Your task to perform on an android device: toggle improve location accuracy Image 0: 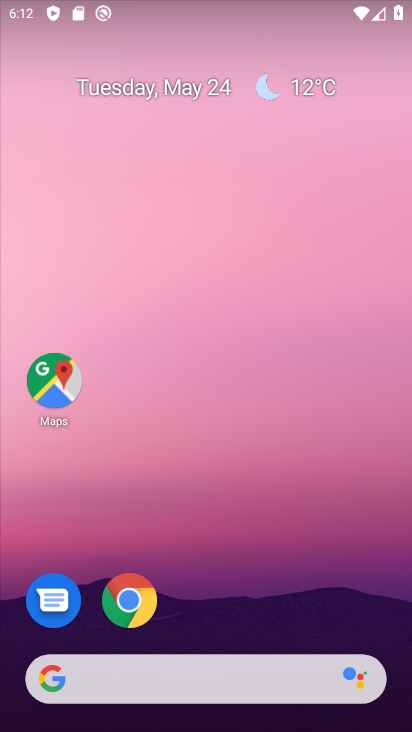
Step 0: click (331, 45)
Your task to perform on an android device: toggle improve location accuracy Image 1: 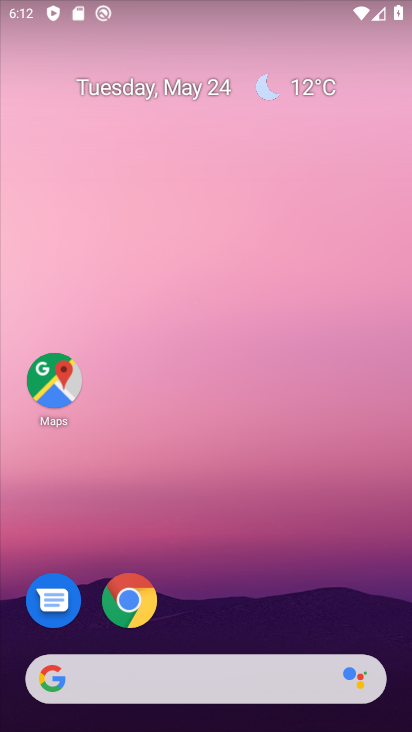
Step 1: drag from (237, 677) to (234, 33)
Your task to perform on an android device: toggle improve location accuracy Image 2: 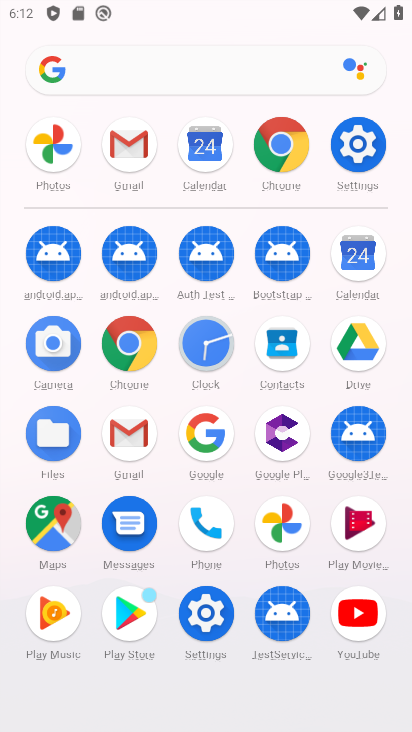
Step 2: click (363, 145)
Your task to perform on an android device: toggle improve location accuracy Image 3: 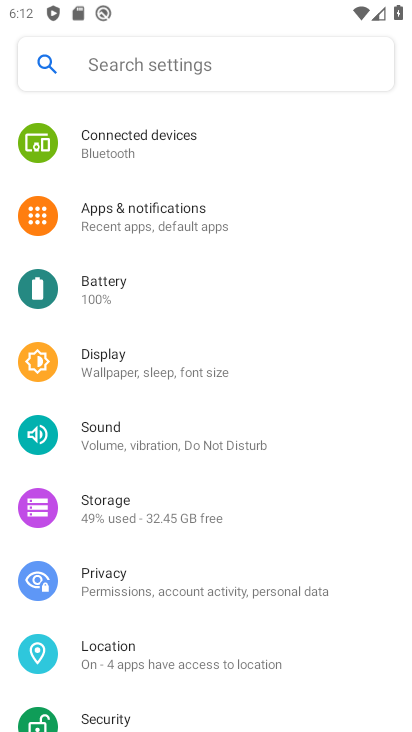
Step 3: click (122, 650)
Your task to perform on an android device: toggle improve location accuracy Image 4: 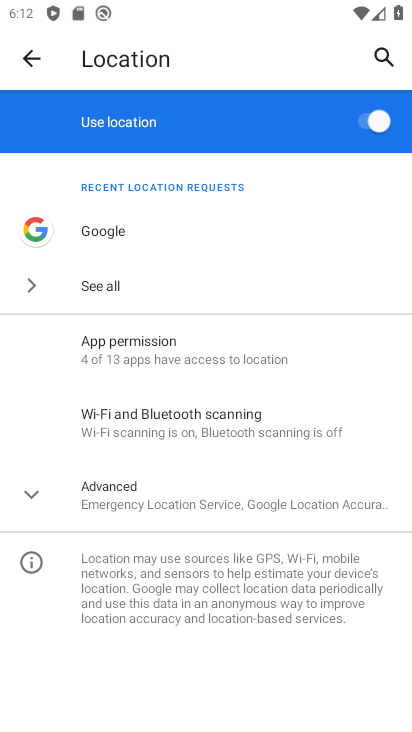
Step 4: click (192, 502)
Your task to perform on an android device: toggle improve location accuracy Image 5: 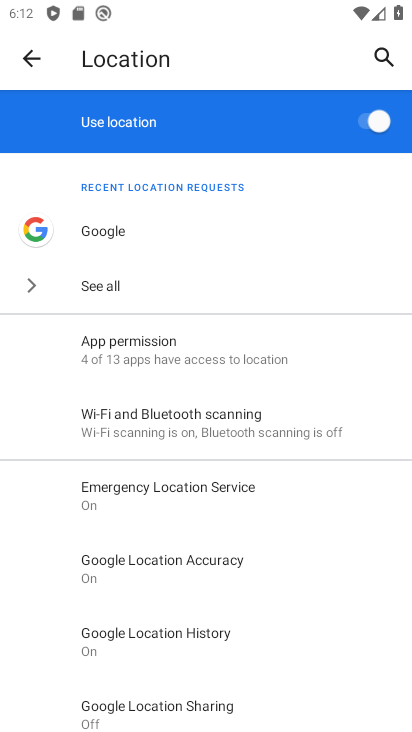
Step 5: click (204, 562)
Your task to perform on an android device: toggle improve location accuracy Image 6: 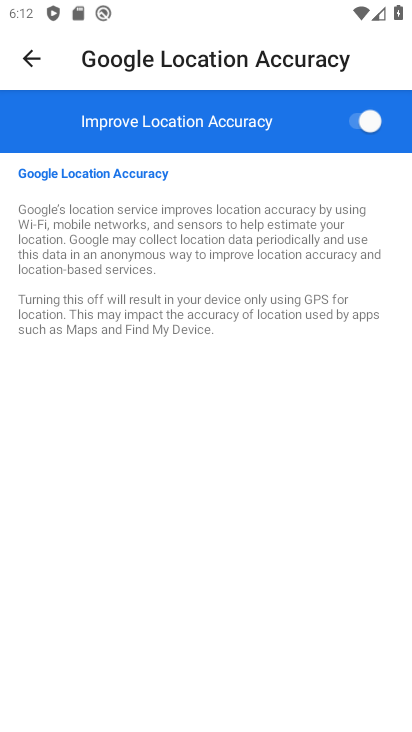
Step 6: click (358, 116)
Your task to perform on an android device: toggle improve location accuracy Image 7: 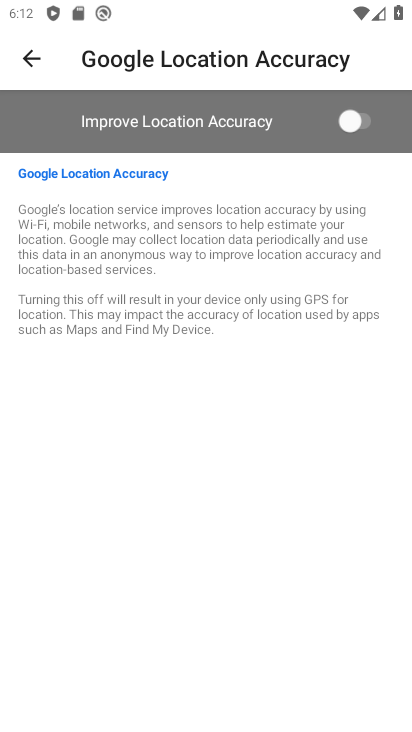
Step 7: task complete